Your task to perform on an android device: Show me the alarms in the clock app Image 0: 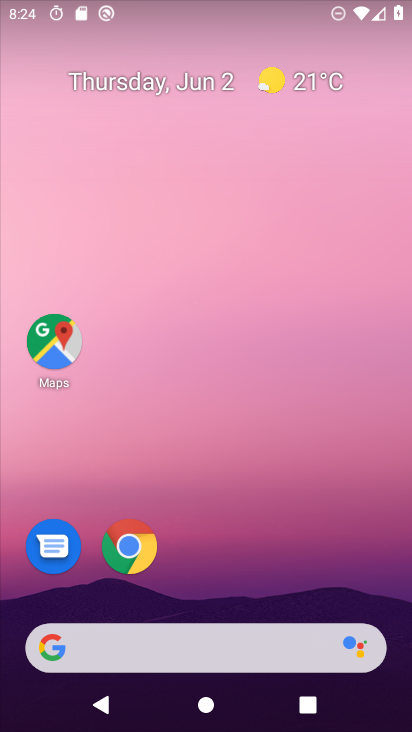
Step 0: drag from (368, 557) to (304, 155)
Your task to perform on an android device: Show me the alarms in the clock app Image 1: 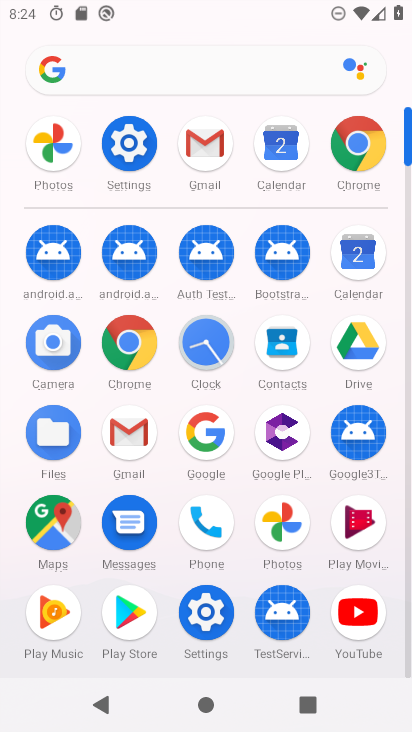
Step 1: click (202, 358)
Your task to perform on an android device: Show me the alarms in the clock app Image 2: 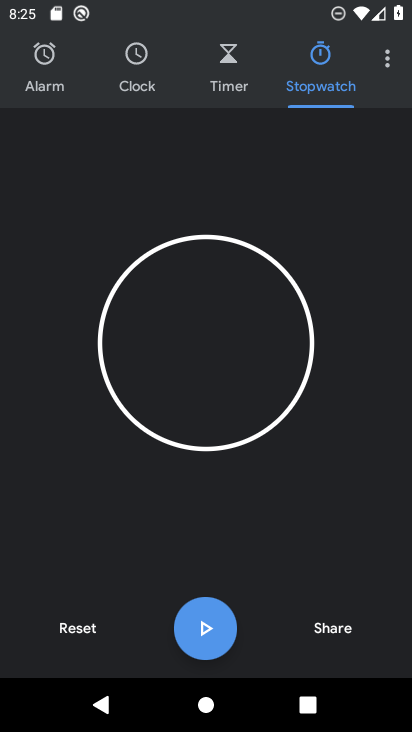
Step 2: click (46, 81)
Your task to perform on an android device: Show me the alarms in the clock app Image 3: 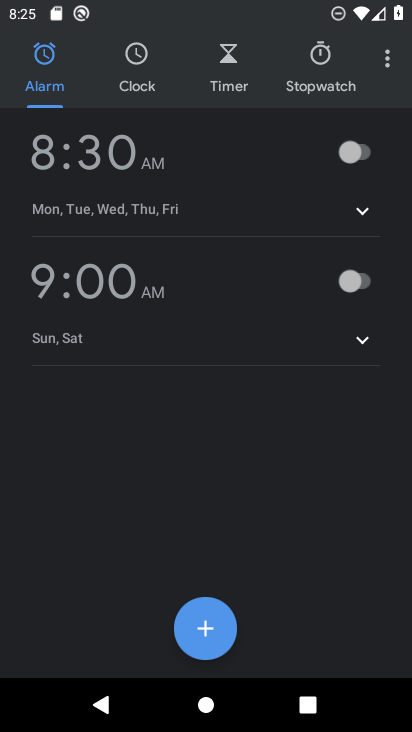
Step 3: click (229, 619)
Your task to perform on an android device: Show me the alarms in the clock app Image 4: 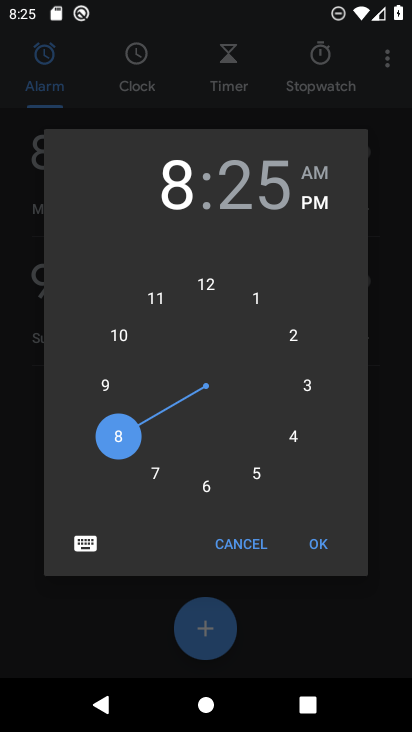
Step 4: click (309, 544)
Your task to perform on an android device: Show me the alarms in the clock app Image 5: 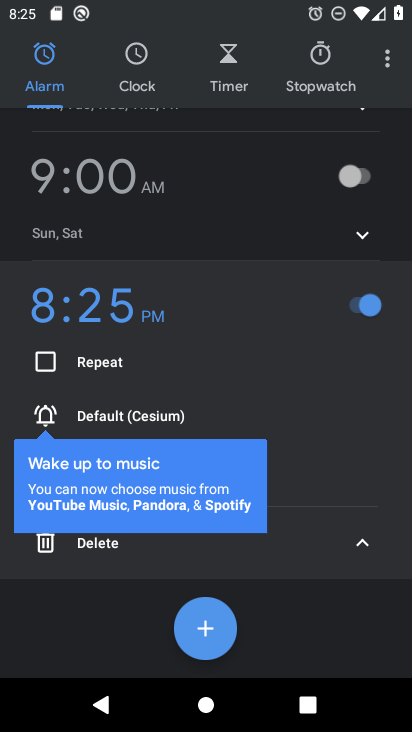
Step 5: task complete